Your task to perform on an android device: open sync settings in chrome Image 0: 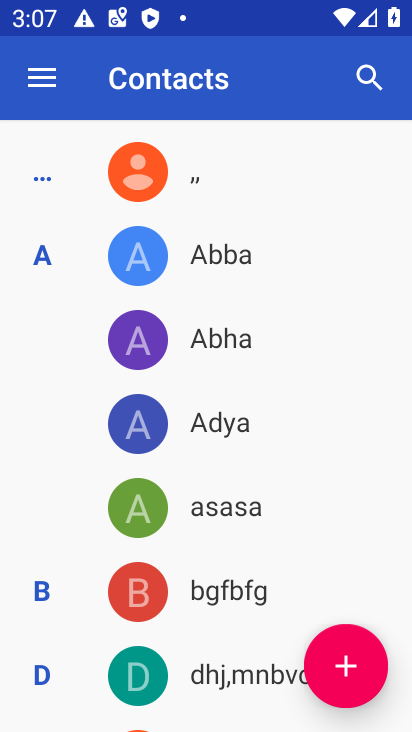
Step 0: press home button
Your task to perform on an android device: open sync settings in chrome Image 1: 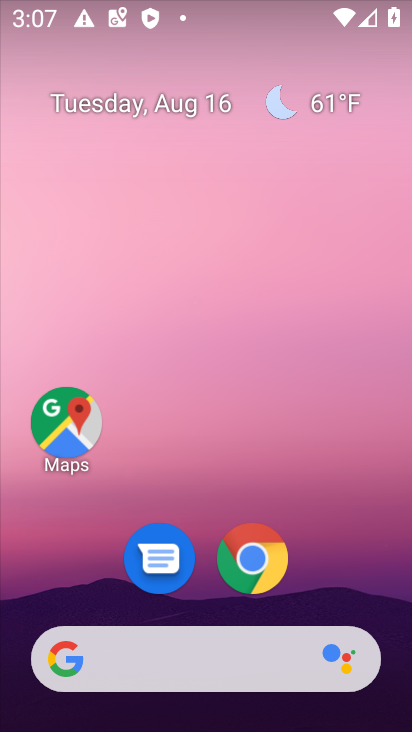
Step 1: click (256, 560)
Your task to perform on an android device: open sync settings in chrome Image 2: 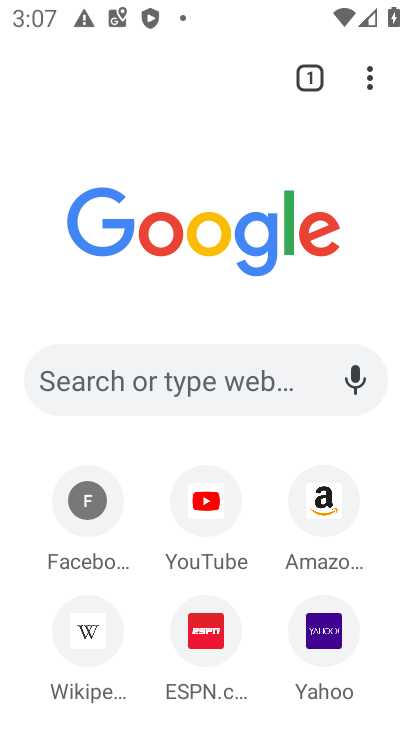
Step 2: click (365, 88)
Your task to perform on an android device: open sync settings in chrome Image 3: 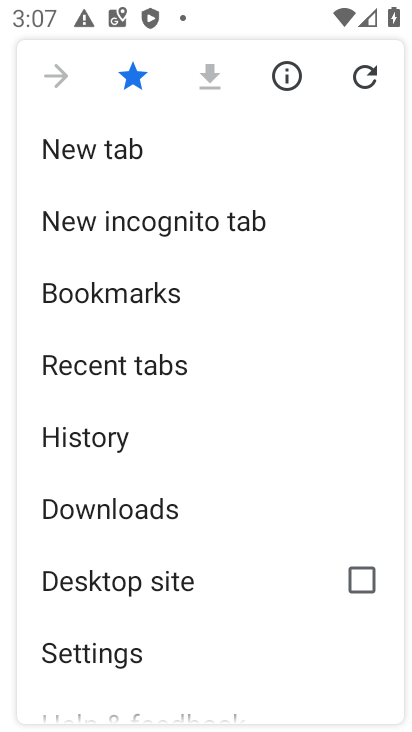
Step 3: drag from (191, 653) to (268, 326)
Your task to perform on an android device: open sync settings in chrome Image 4: 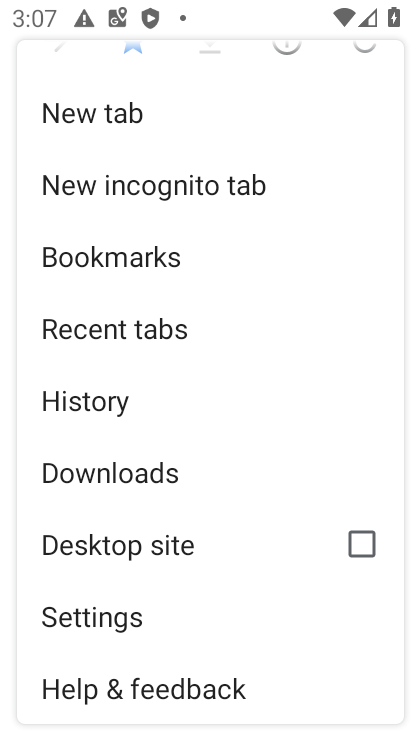
Step 4: click (123, 616)
Your task to perform on an android device: open sync settings in chrome Image 5: 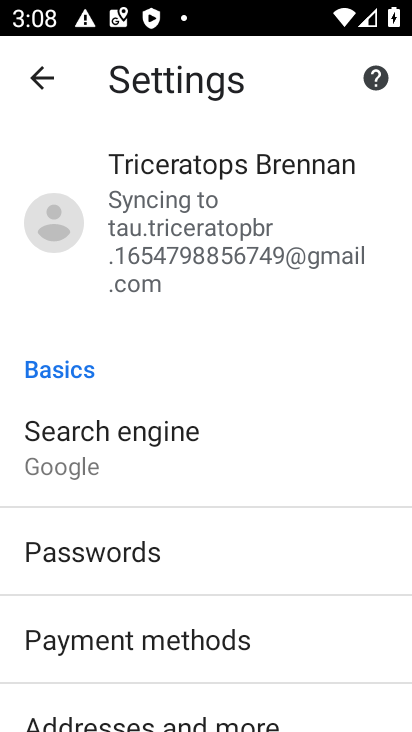
Step 5: click (137, 208)
Your task to perform on an android device: open sync settings in chrome Image 6: 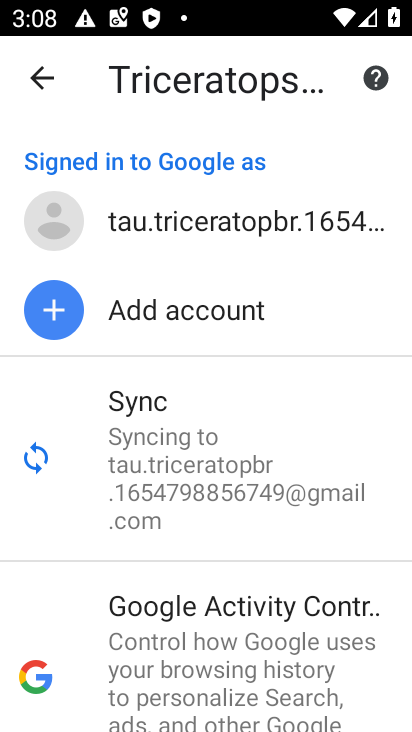
Step 6: click (158, 465)
Your task to perform on an android device: open sync settings in chrome Image 7: 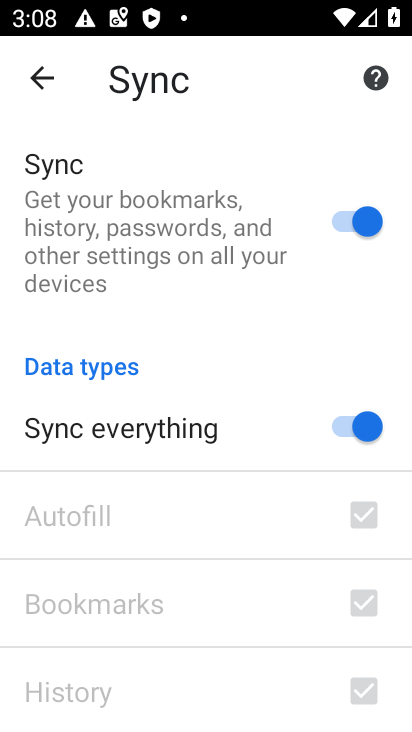
Step 7: task complete